Your task to perform on an android device: Go to location settings Image 0: 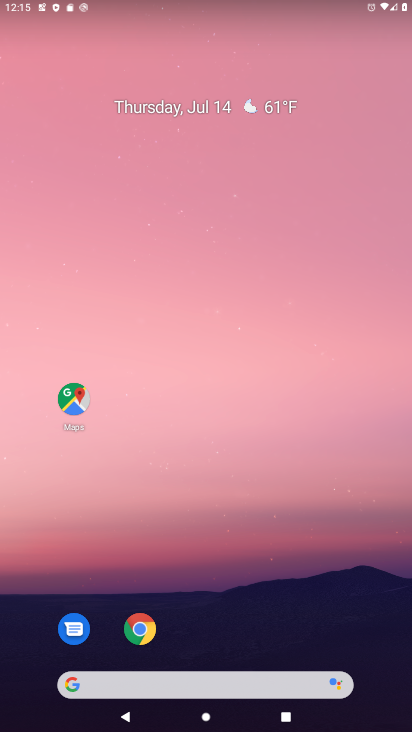
Step 0: drag from (258, 584) to (218, 180)
Your task to perform on an android device: Go to location settings Image 1: 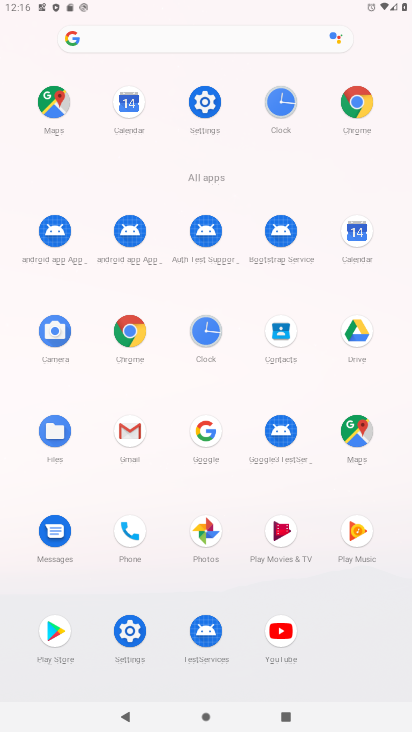
Step 1: click (203, 103)
Your task to perform on an android device: Go to location settings Image 2: 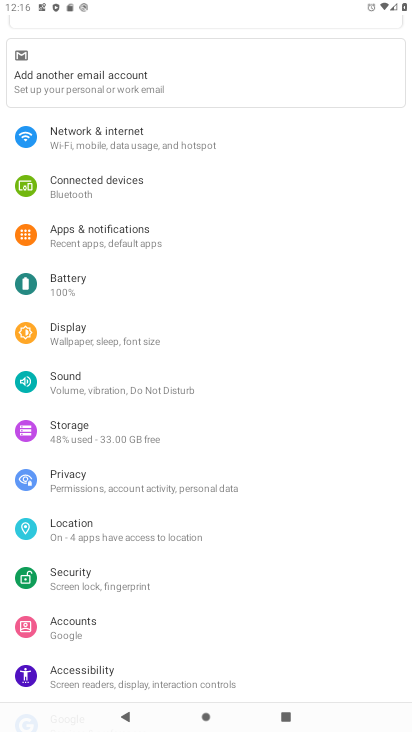
Step 2: click (76, 520)
Your task to perform on an android device: Go to location settings Image 3: 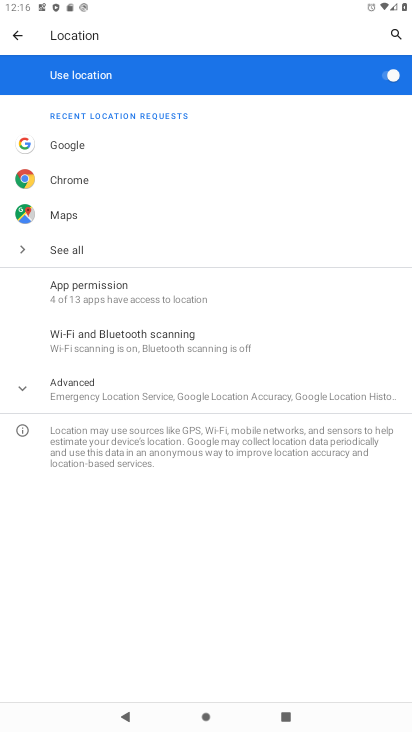
Step 3: task complete